Your task to perform on an android device: turn on location history Image 0: 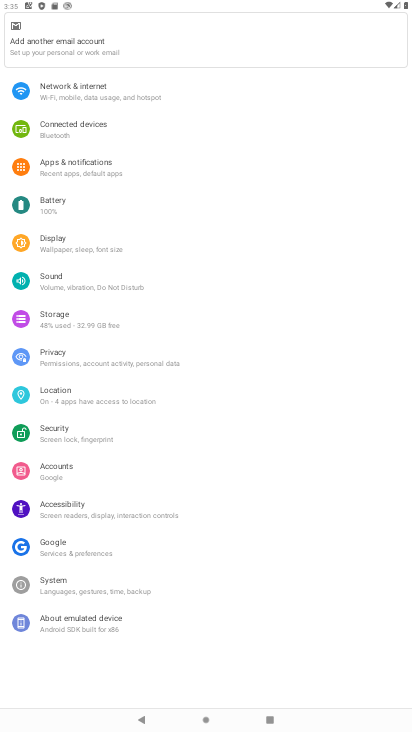
Step 0: press home button
Your task to perform on an android device: turn on location history Image 1: 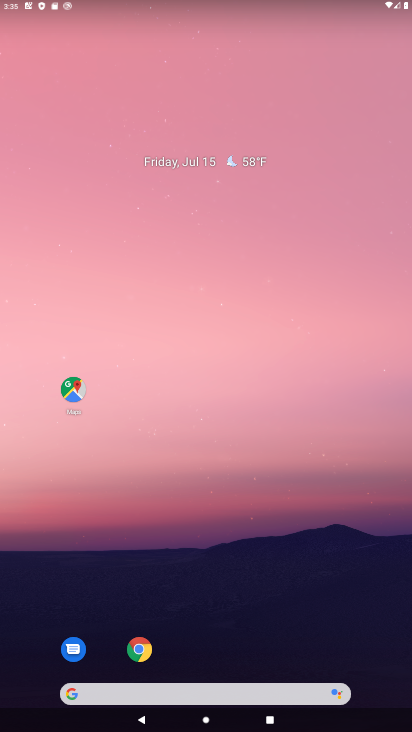
Step 1: drag from (224, 722) to (217, 406)
Your task to perform on an android device: turn on location history Image 2: 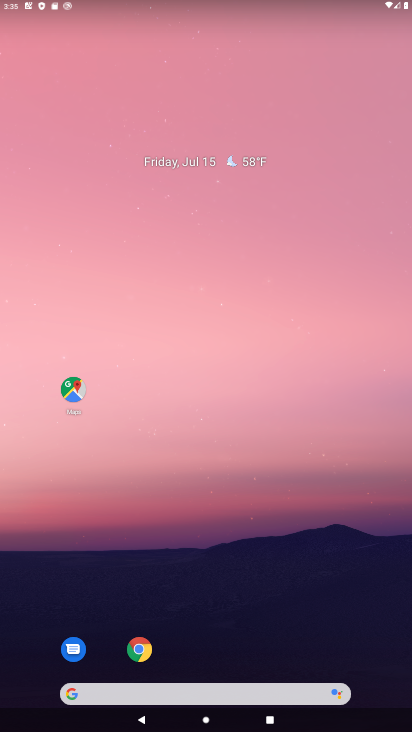
Step 2: drag from (229, 724) to (240, 174)
Your task to perform on an android device: turn on location history Image 3: 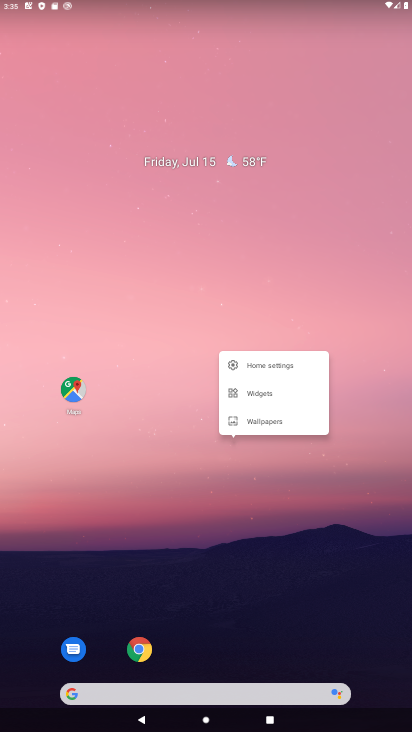
Step 3: click (200, 488)
Your task to perform on an android device: turn on location history Image 4: 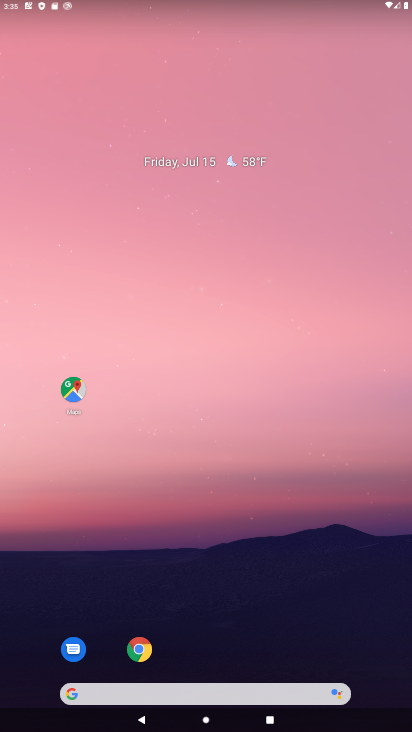
Step 4: drag from (249, 717) to (260, 172)
Your task to perform on an android device: turn on location history Image 5: 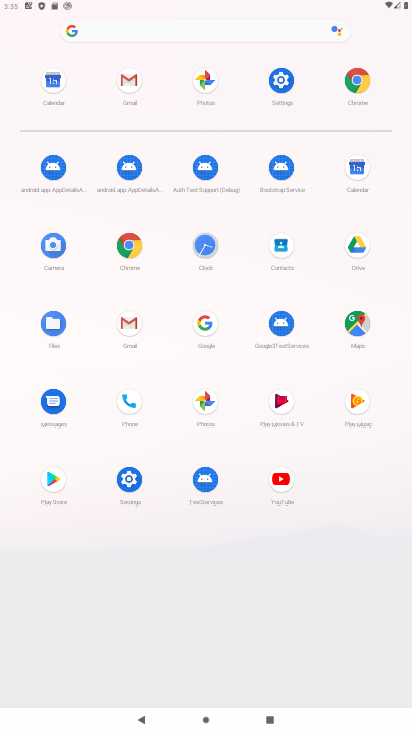
Step 5: click (285, 75)
Your task to perform on an android device: turn on location history Image 6: 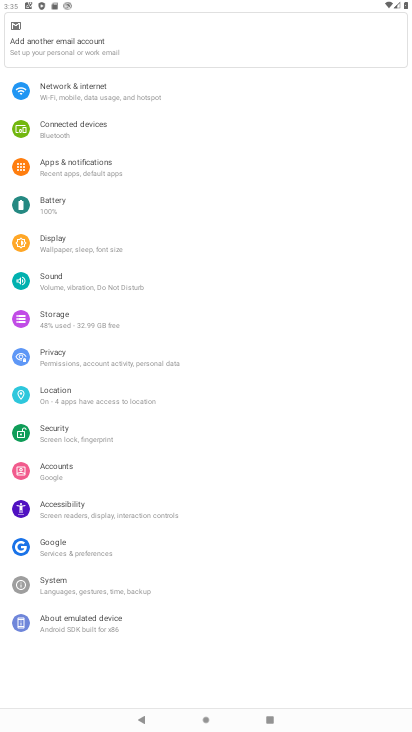
Step 6: click (41, 389)
Your task to perform on an android device: turn on location history Image 7: 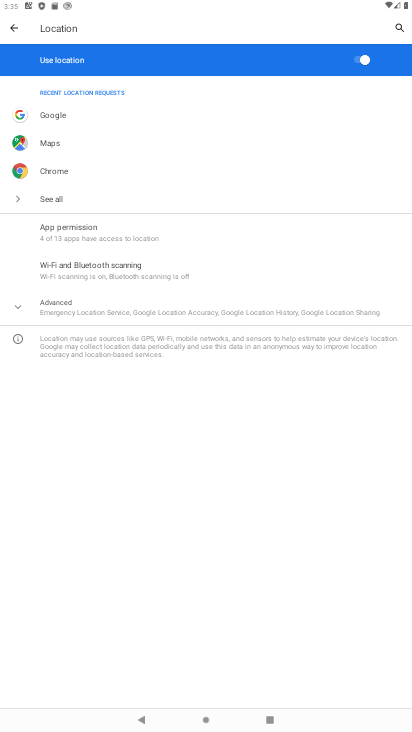
Step 7: click (89, 300)
Your task to perform on an android device: turn on location history Image 8: 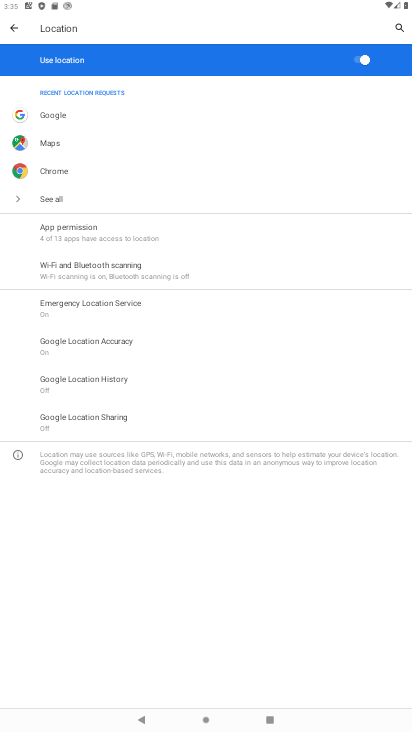
Step 8: click (93, 383)
Your task to perform on an android device: turn on location history Image 9: 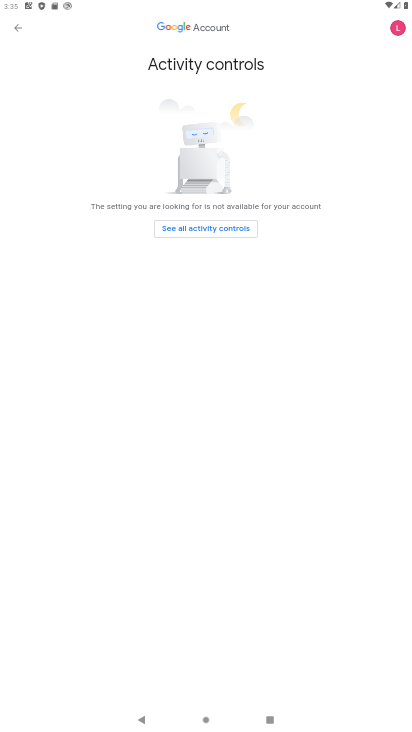
Step 9: task complete